Your task to perform on an android device: turn on notifications settings in the gmail app Image 0: 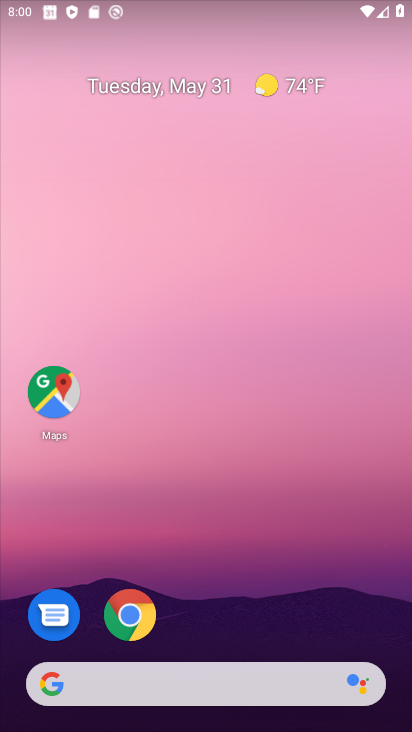
Step 0: drag from (196, 628) to (249, 282)
Your task to perform on an android device: turn on notifications settings in the gmail app Image 1: 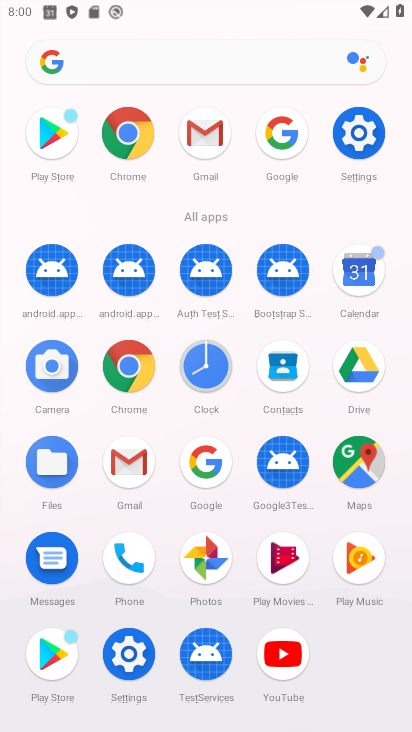
Step 1: click (135, 464)
Your task to perform on an android device: turn on notifications settings in the gmail app Image 2: 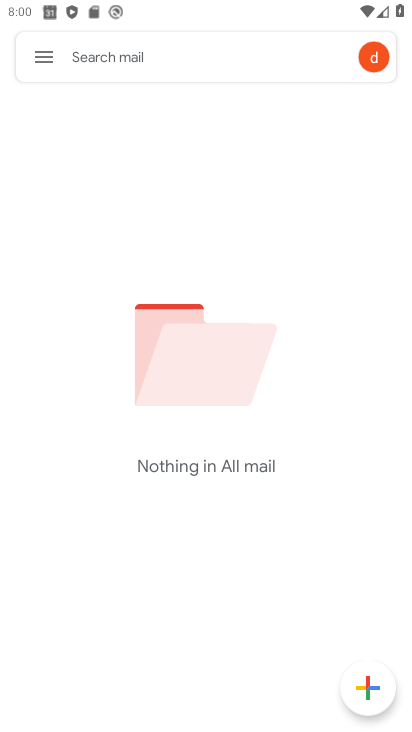
Step 2: click (31, 59)
Your task to perform on an android device: turn on notifications settings in the gmail app Image 3: 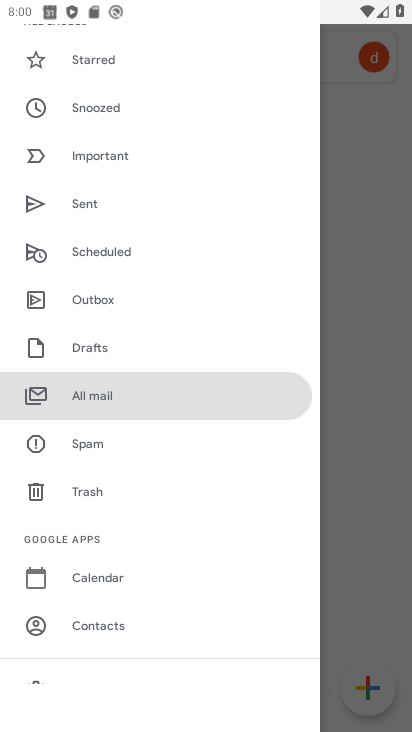
Step 3: drag from (121, 585) to (141, 371)
Your task to perform on an android device: turn on notifications settings in the gmail app Image 4: 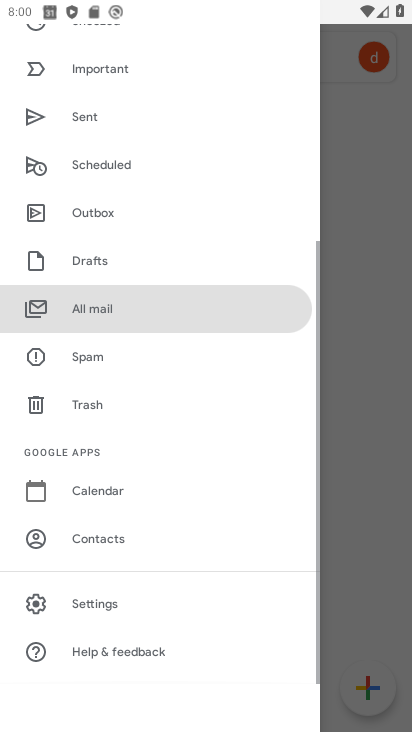
Step 4: click (112, 606)
Your task to perform on an android device: turn on notifications settings in the gmail app Image 5: 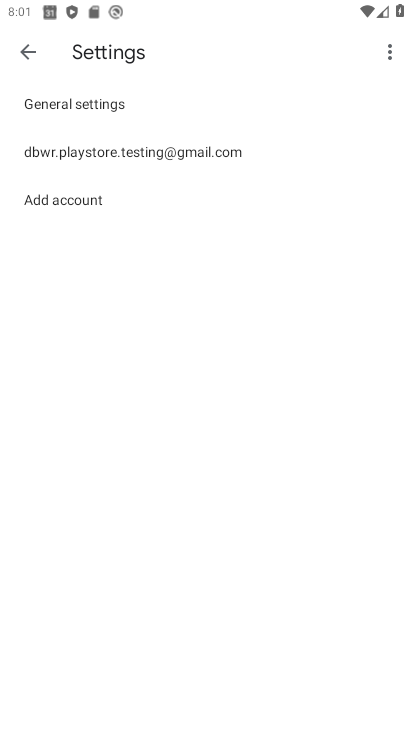
Step 5: click (208, 143)
Your task to perform on an android device: turn on notifications settings in the gmail app Image 6: 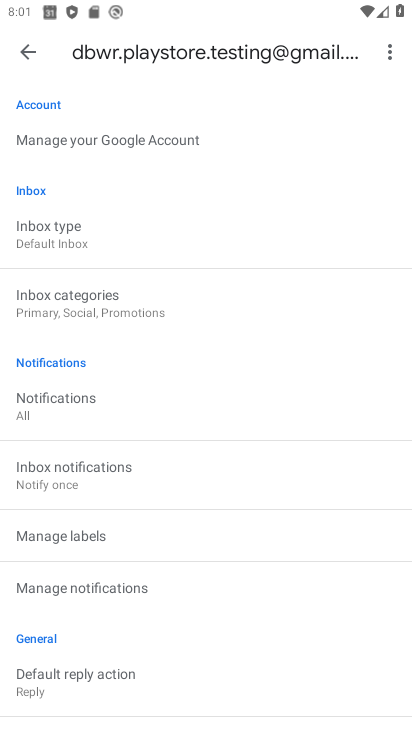
Step 6: click (177, 585)
Your task to perform on an android device: turn on notifications settings in the gmail app Image 7: 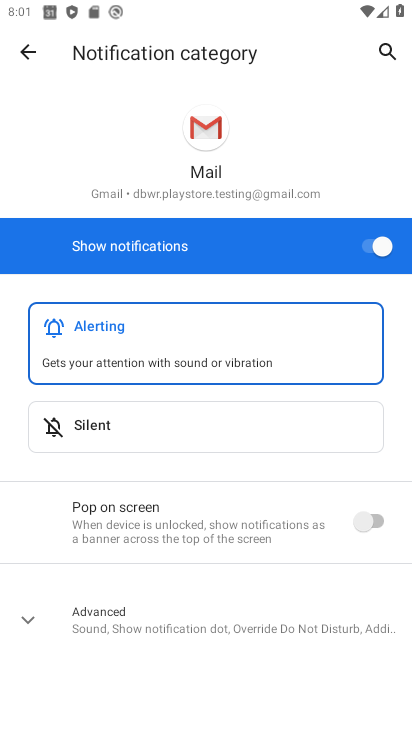
Step 7: task complete